Your task to perform on an android device: Open the stopwatch Image 0: 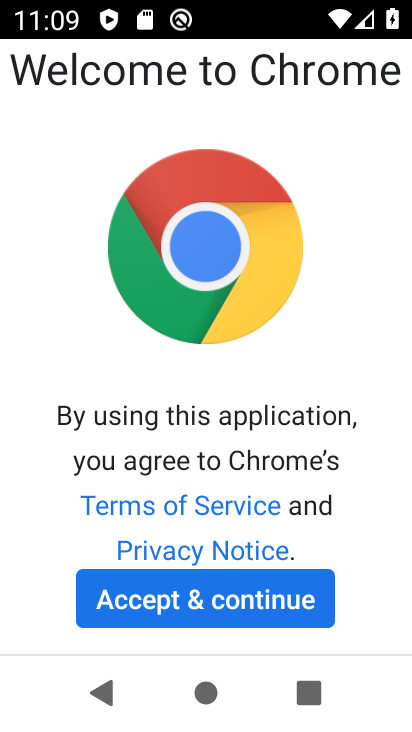
Step 0: press home button
Your task to perform on an android device: Open the stopwatch Image 1: 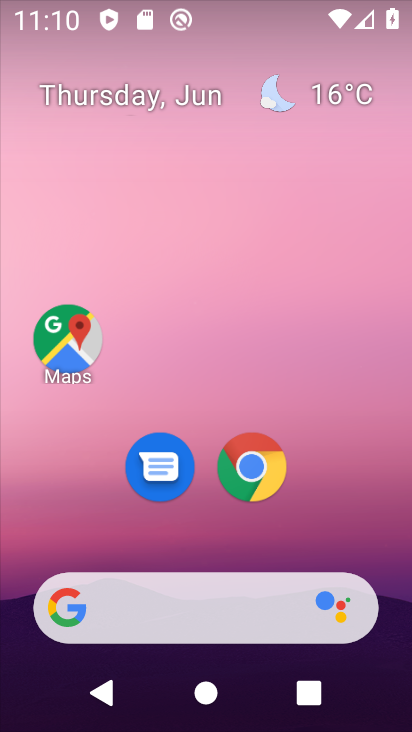
Step 1: drag from (369, 547) to (376, 19)
Your task to perform on an android device: Open the stopwatch Image 2: 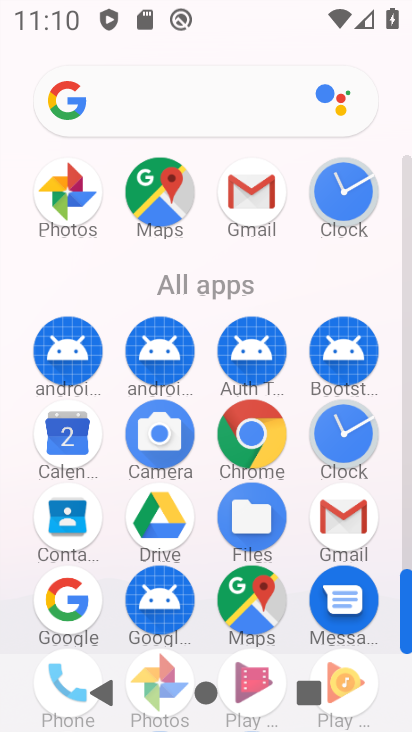
Step 2: click (342, 434)
Your task to perform on an android device: Open the stopwatch Image 3: 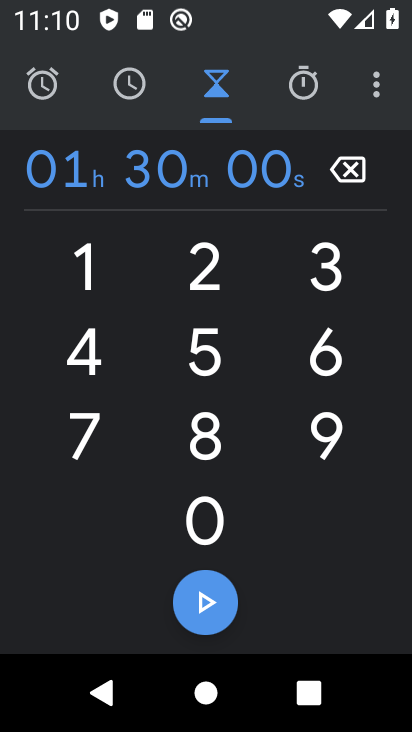
Step 3: click (302, 83)
Your task to perform on an android device: Open the stopwatch Image 4: 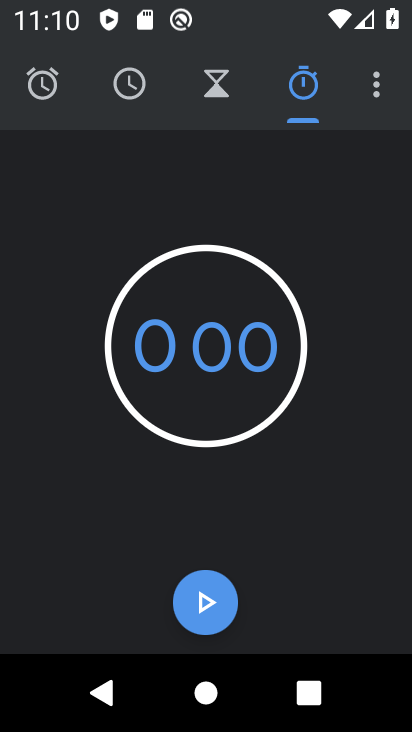
Step 4: task complete